Your task to perform on an android device: toggle improve location accuracy Image 0: 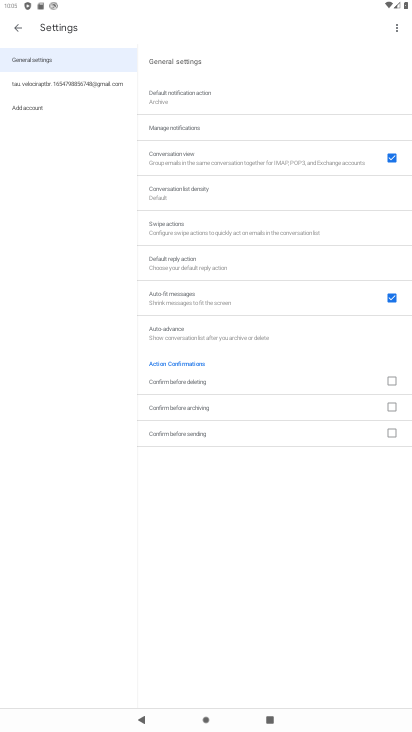
Step 0: press home button
Your task to perform on an android device: toggle improve location accuracy Image 1: 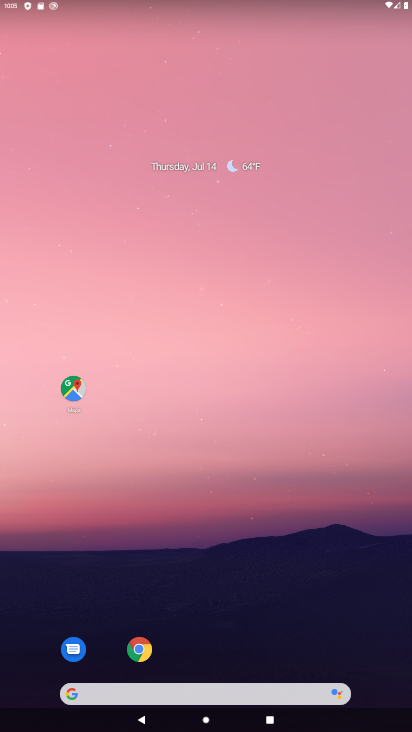
Step 1: drag from (269, 546) to (296, 42)
Your task to perform on an android device: toggle improve location accuracy Image 2: 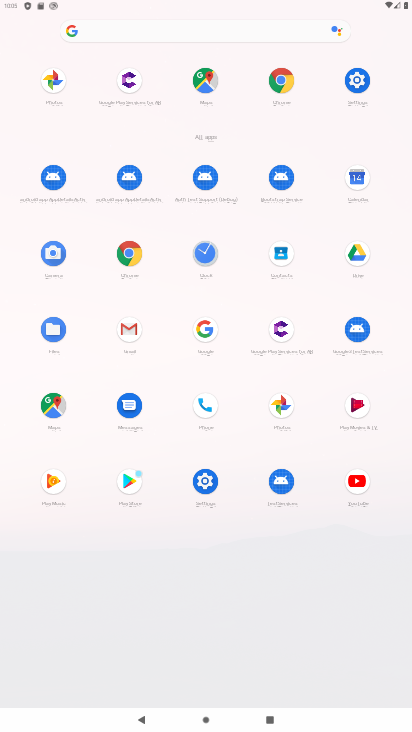
Step 2: click (208, 462)
Your task to perform on an android device: toggle improve location accuracy Image 3: 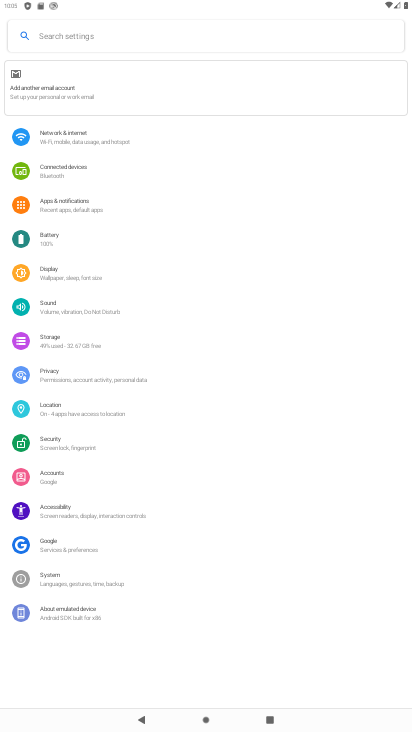
Step 3: click (58, 405)
Your task to perform on an android device: toggle improve location accuracy Image 4: 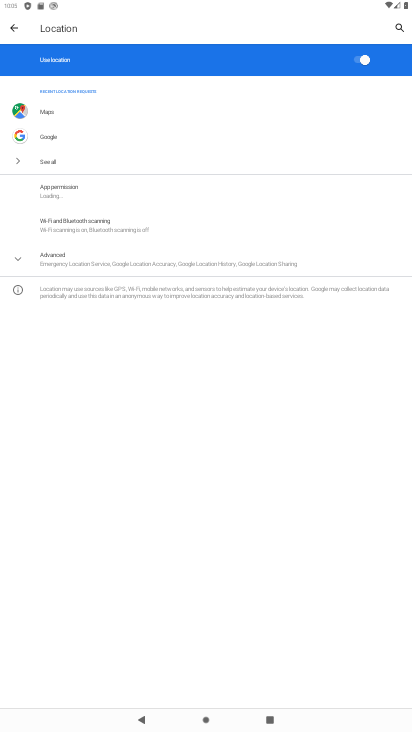
Step 4: click (62, 256)
Your task to perform on an android device: toggle improve location accuracy Image 5: 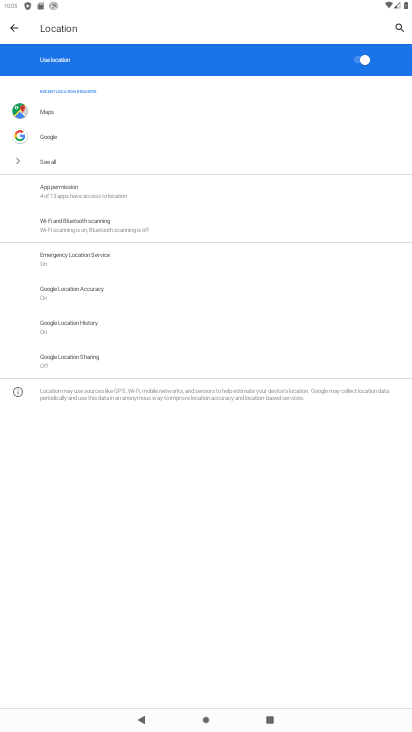
Step 5: click (85, 283)
Your task to perform on an android device: toggle improve location accuracy Image 6: 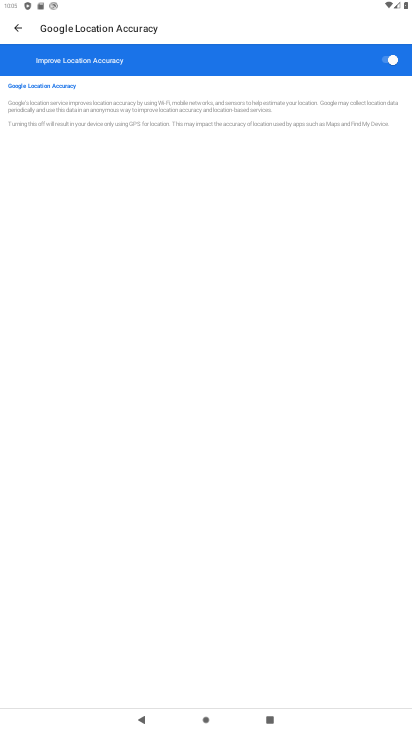
Step 6: click (312, 58)
Your task to perform on an android device: toggle improve location accuracy Image 7: 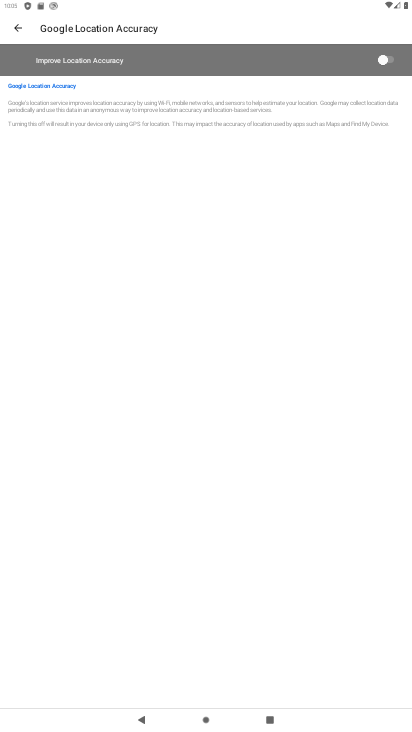
Step 7: task complete